Your task to perform on an android device: Go to Google maps Image 0: 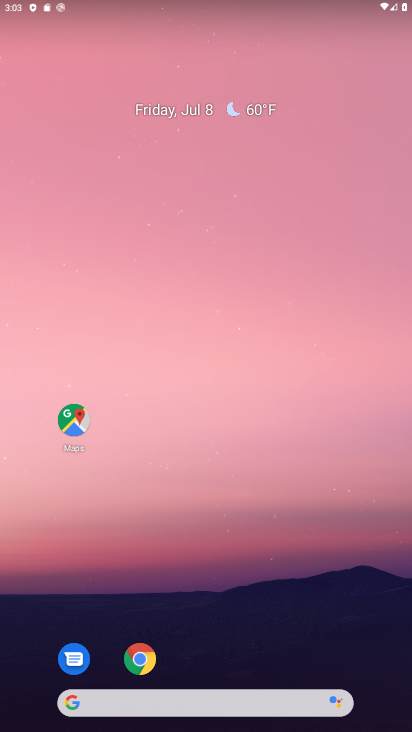
Step 0: click (74, 426)
Your task to perform on an android device: Go to Google maps Image 1: 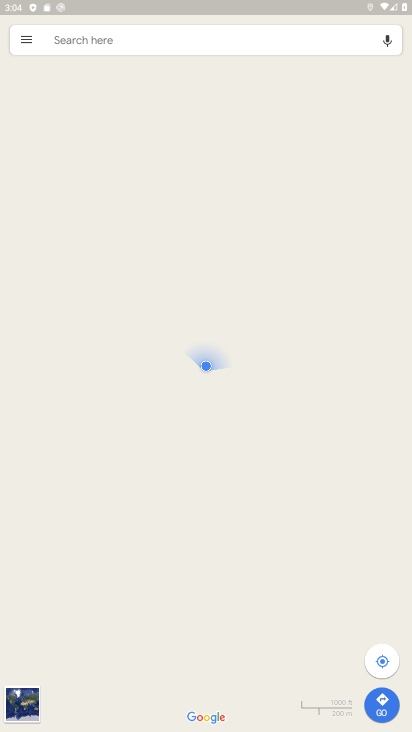
Step 1: task complete